Your task to perform on an android device: turn on notifications settings in the gmail app Image 0: 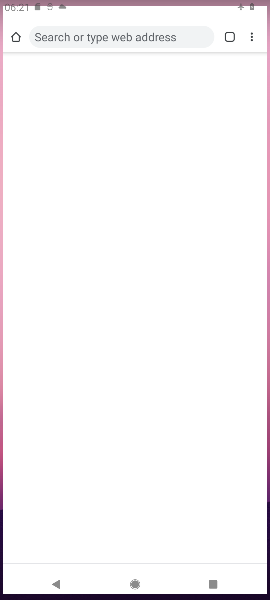
Step 0: press home button
Your task to perform on an android device: turn on notifications settings in the gmail app Image 1: 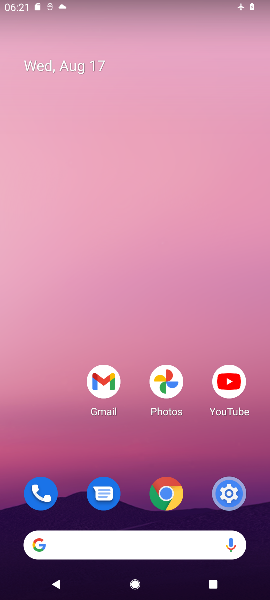
Step 1: click (87, 388)
Your task to perform on an android device: turn on notifications settings in the gmail app Image 2: 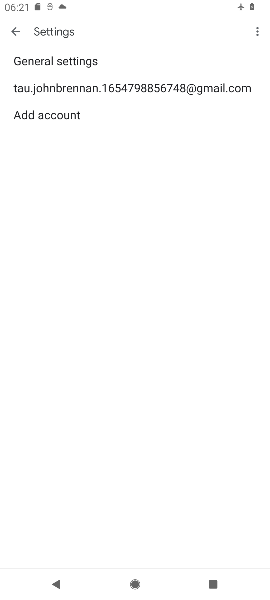
Step 2: click (101, 91)
Your task to perform on an android device: turn on notifications settings in the gmail app Image 3: 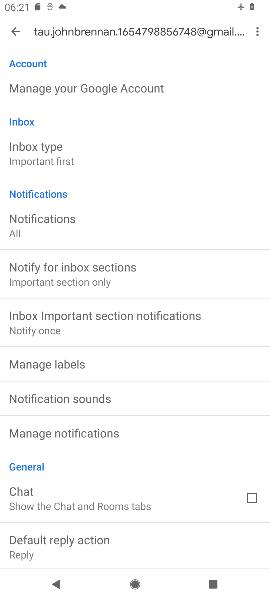
Step 3: click (84, 435)
Your task to perform on an android device: turn on notifications settings in the gmail app Image 4: 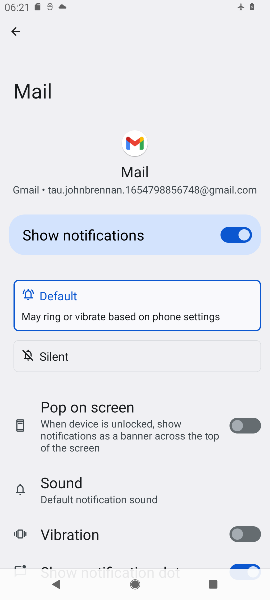
Step 4: task complete